Your task to perform on an android device: turn off wifi Image 0: 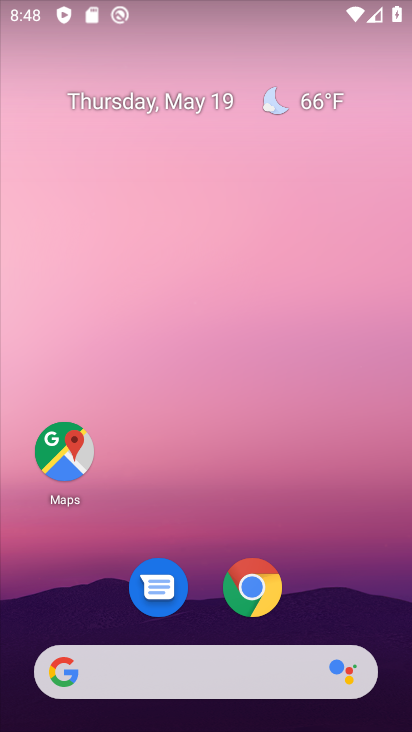
Step 0: drag from (276, 654) to (231, 334)
Your task to perform on an android device: turn off wifi Image 1: 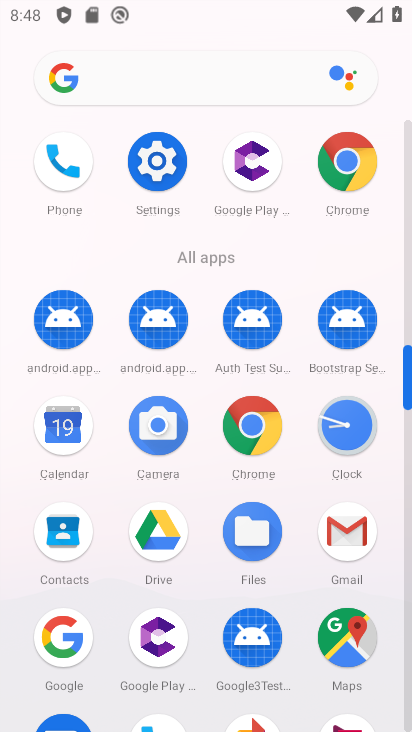
Step 1: click (144, 165)
Your task to perform on an android device: turn off wifi Image 2: 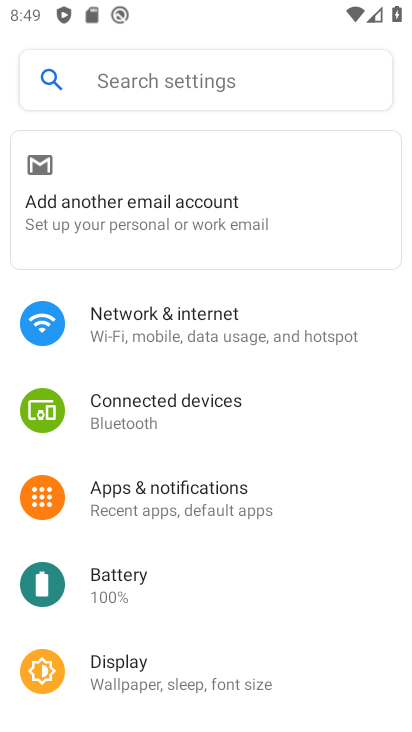
Step 2: click (187, 346)
Your task to perform on an android device: turn off wifi Image 3: 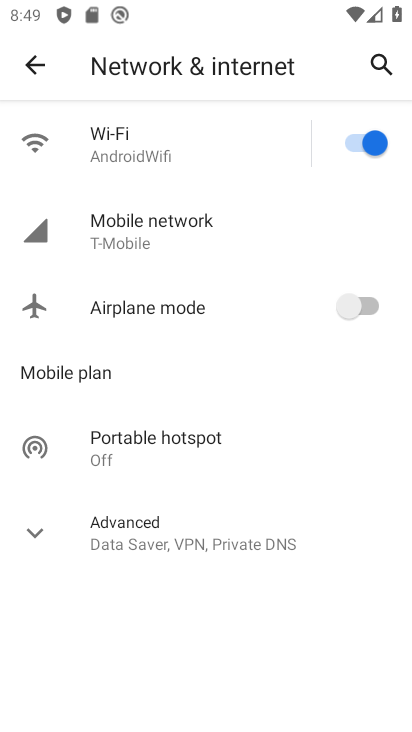
Step 3: click (131, 152)
Your task to perform on an android device: turn off wifi Image 4: 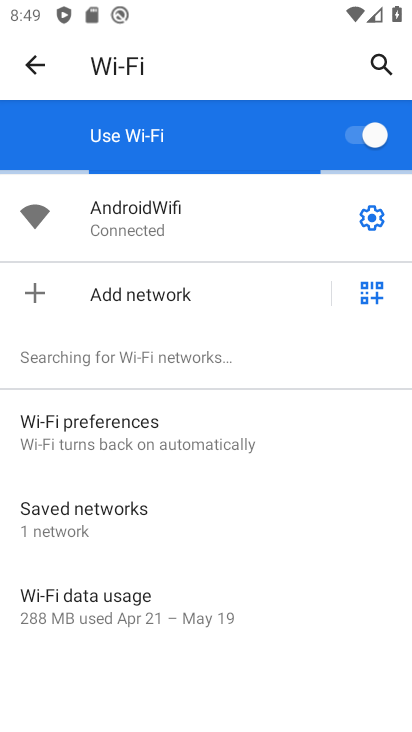
Step 4: click (354, 131)
Your task to perform on an android device: turn off wifi Image 5: 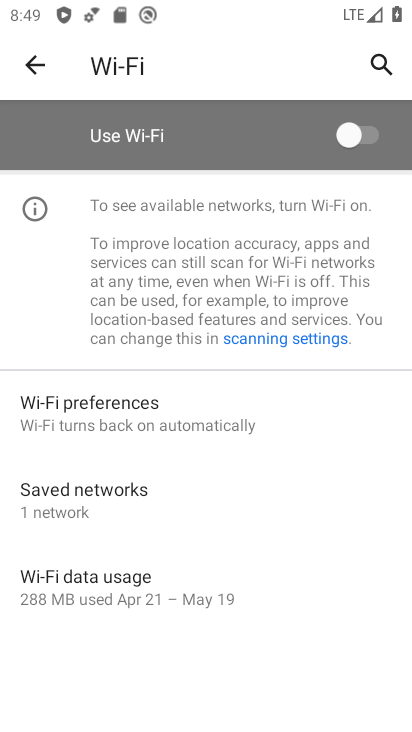
Step 5: task complete